Your task to perform on an android device: Open calendar and show me the fourth week of next month Image 0: 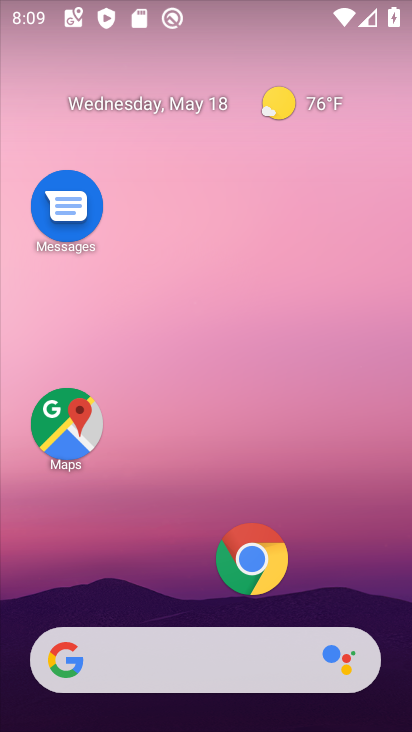
Step 0: drag from (202, 613) to (161, 41)
Your task to perform on an android device: Open calendar and show me the fourth week of next month Image 1: 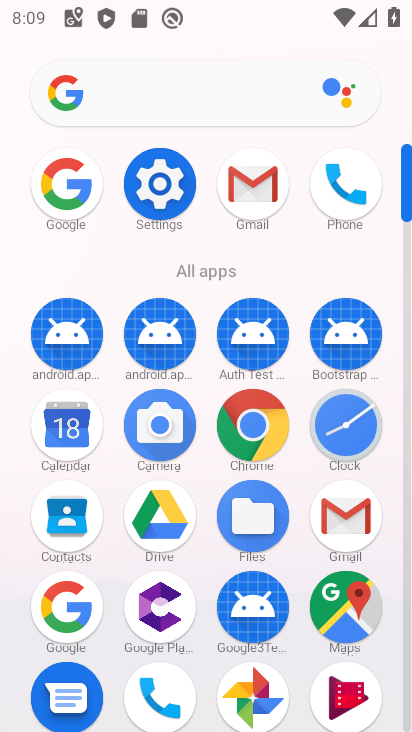
Step 1: click (52, 426)
Your task to perform on an android device: Open calendar and show me the fourth week of next month Image 2: 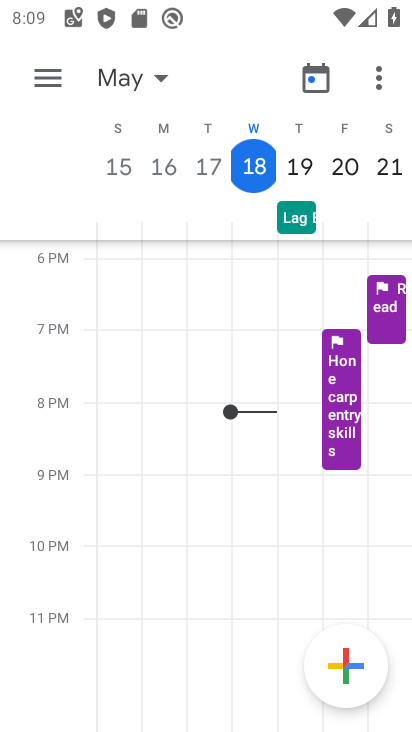
Step 2: click (158, 79)
Your task to perform on an android device: Open calendar and show me the fourth week of next month Image 3: 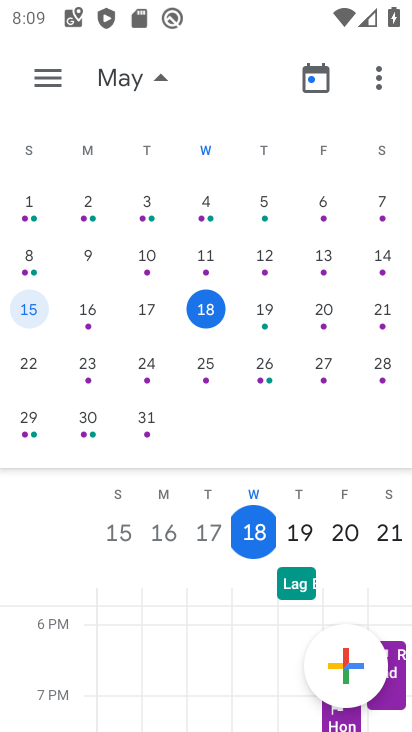
Step 3: drag from (225, 494) to (144, 13)
Your task to perform on an android device: Open calendar and show me the fourth week of next month Image 4: 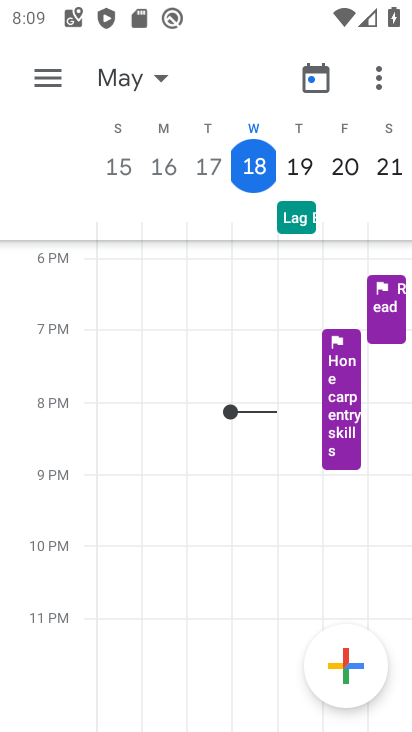
Step 4: drag from (367, 167) to (0, 175)
Your task to perform on an android device: Open calendar and show me the fourth week of next month Image 5: 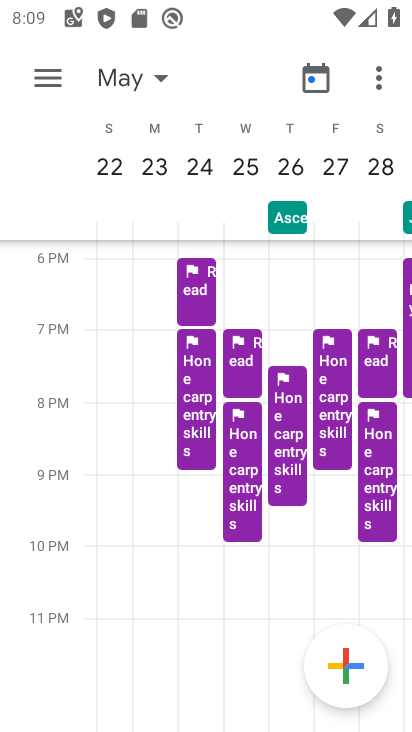
Step 5: drag from (249, 416) to (243, 700)
Your task to perform on an android device: Open calendar and show me the fourth week of next month Image 6: 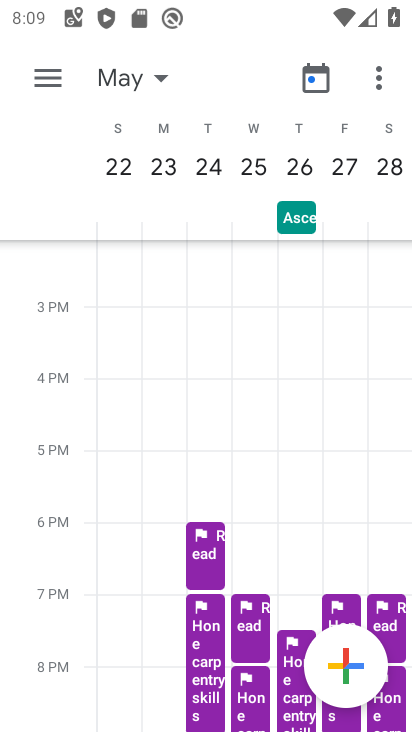
Step 6: drag from (180, 168) to (208, 645)
Your task to perform on an android device: Open calendar and show me the fourth week of next month Image 7: 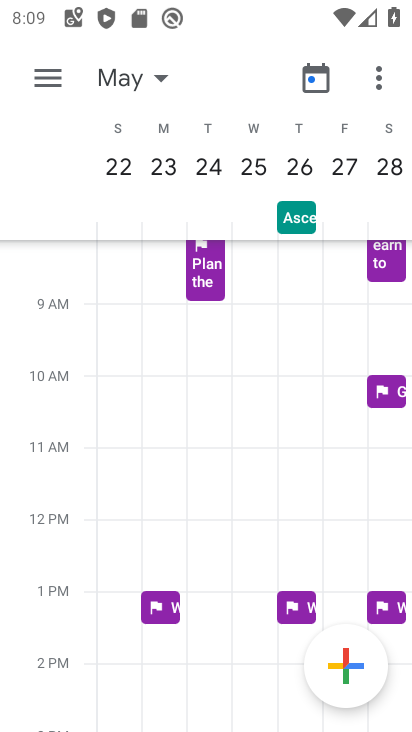
Step 7: click (310, 68)
Your task to perform on an android device: Open calendar and show me the fourth week of next month Image 8: 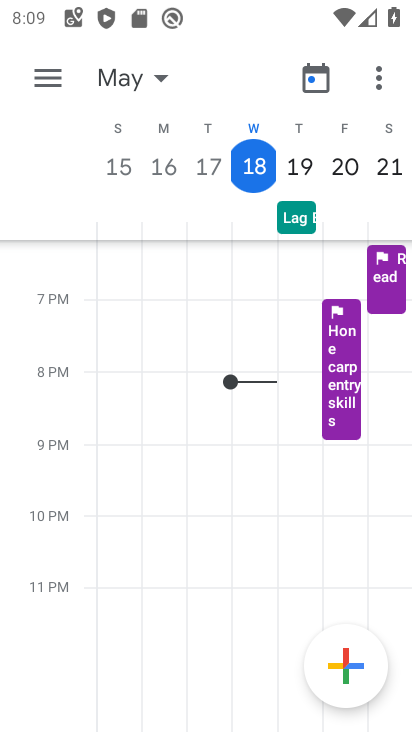
Step 8: click (58, 62)
Your task to perform on an android device: Open calendar and show me the fourth week of next month Image 9: 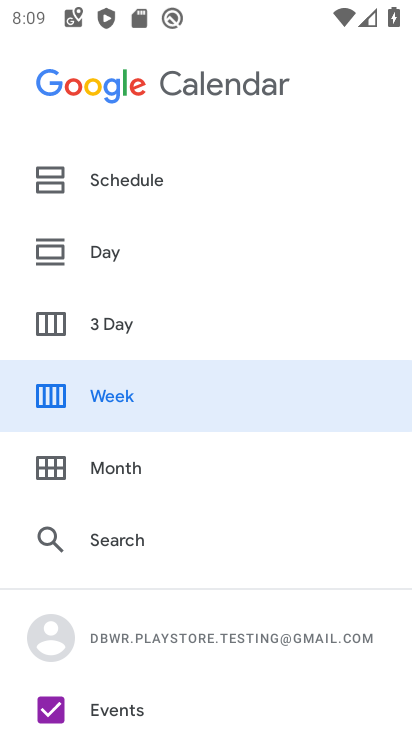
Step 9: click (88, 397)
Your task to perform on an android device: Open calendar and show me the fourth week of next month Image 10: 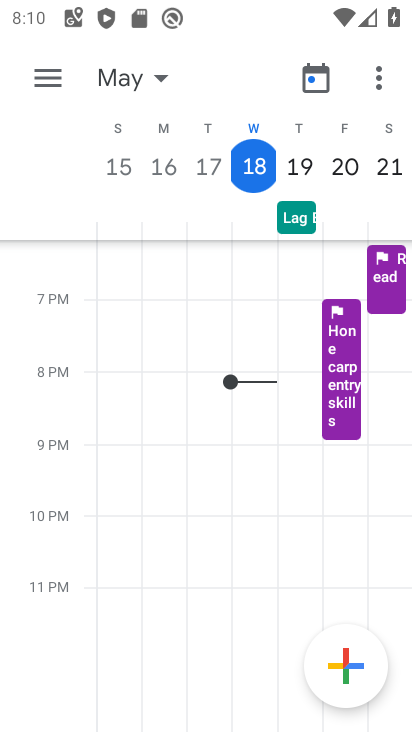
Step 10: task complete